Your task to perform on an android device: search for starred emails in the gmail app Image 0: 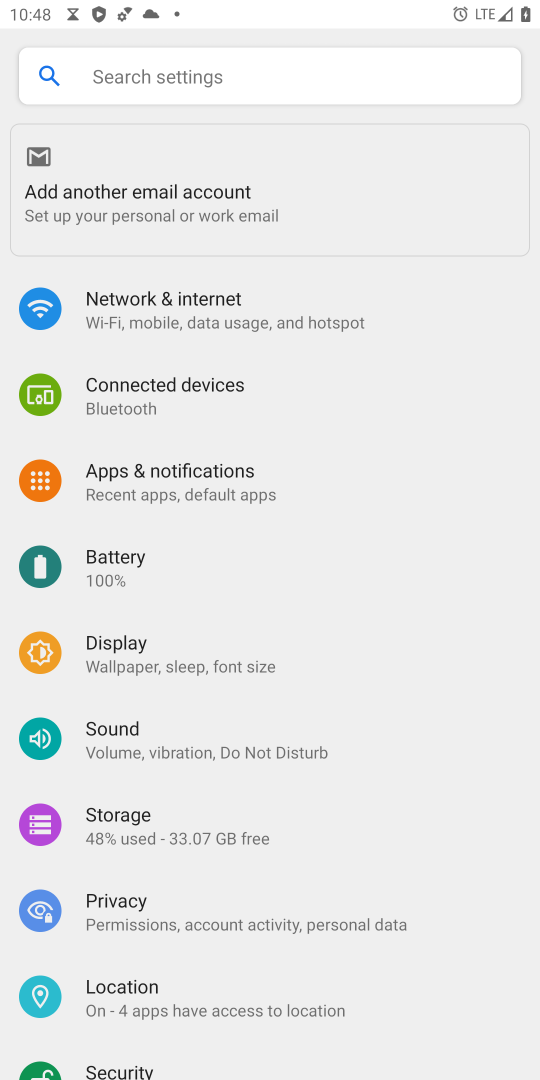
Step 0: press home button
Your task to perform on an android device: search for starred emails in the gmail app Image 1: 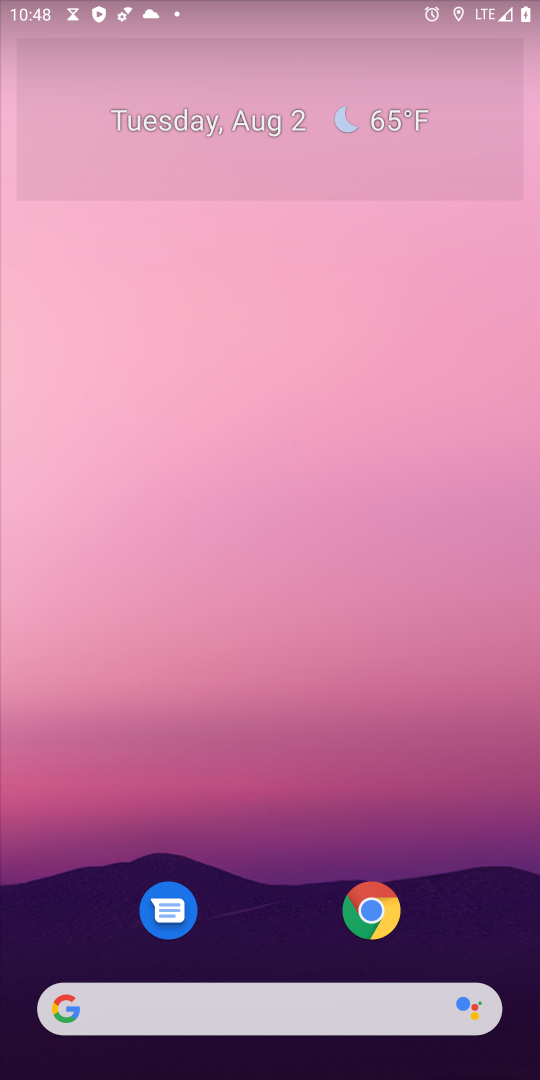
Step 1: drag from (269, 899) to (388, 166)
Your task to perform on an android device: search for starred emails in the gmail app Image 2: 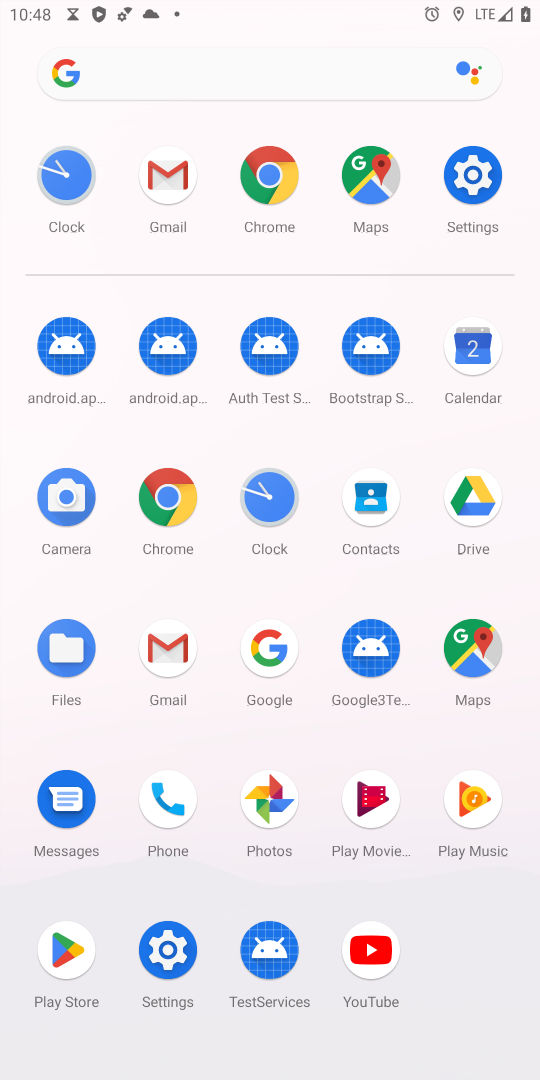
Step 2: click (176, 171)
Your task to perform on an android device: search for starred emails in the gmail app Image 3: 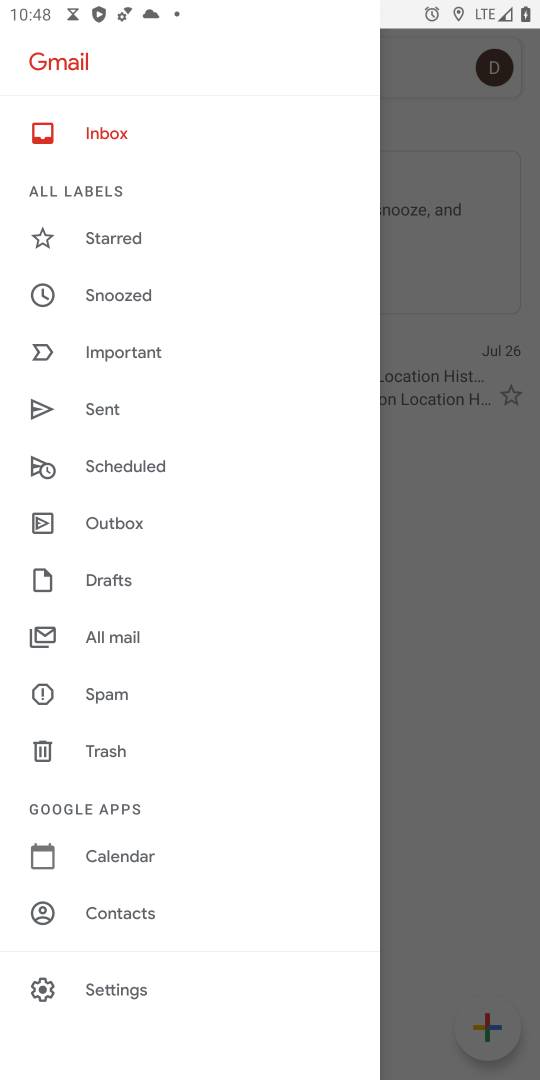
Step 3: click (139, 223)
Your task to perform on an android device: search for starred emails in the gmail app Image 4: 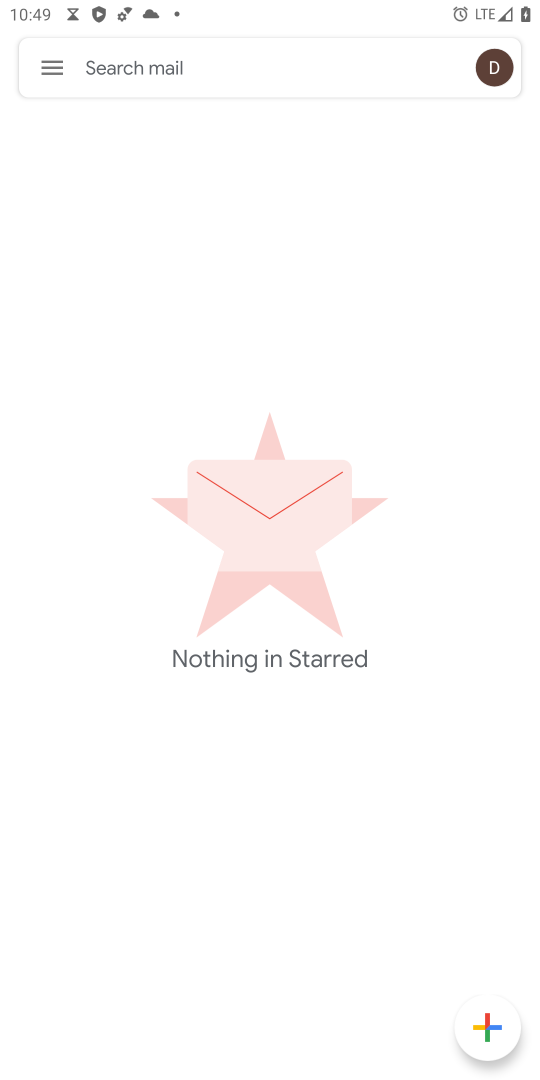
Step 4: task complete